Your task to perform on an android device: Open the phone app and click the voicemail tab. Image 0: 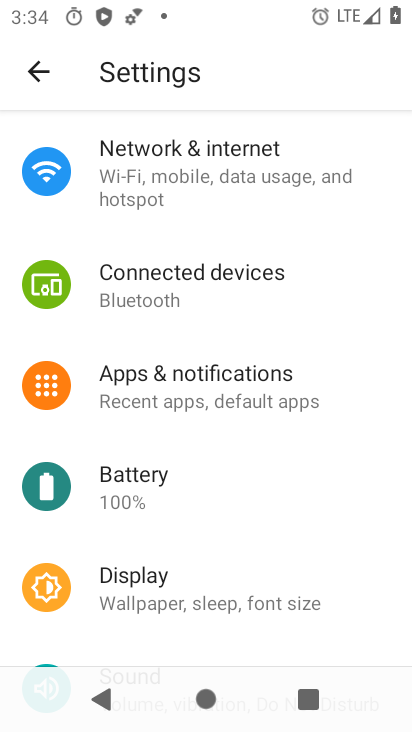
Step 0: drag from (319, 554) to (329, 334)
Your task to perform on an android device: Open the phone app and click the voicemail tab. Image 1: 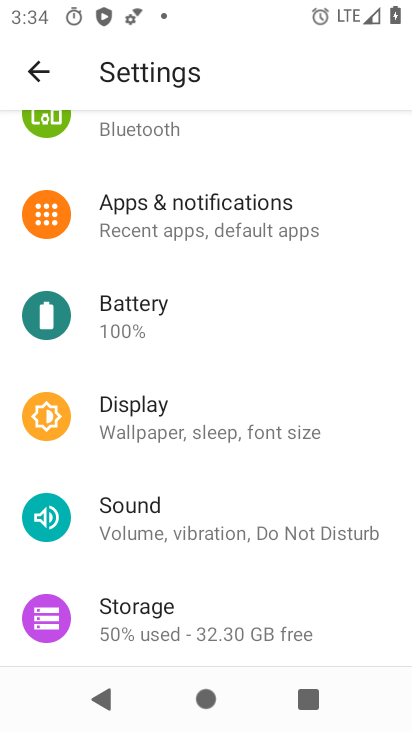
Step 1: press home button
Your task to perform on an android device: Open the phone app and click the voicemail tab. Image 2: 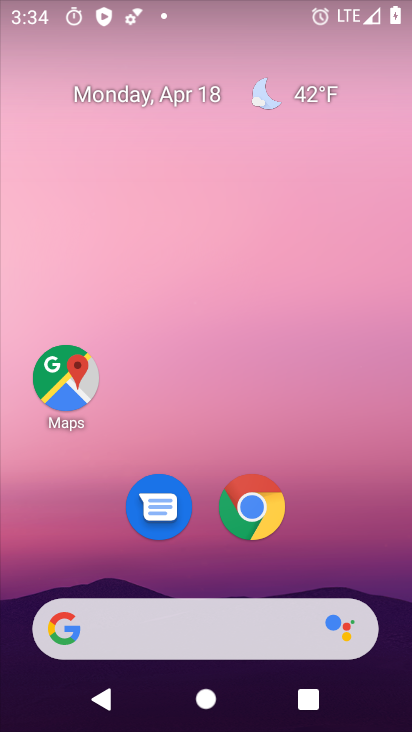
Step 2: drag from (379, 538) to (331, 206)
Your task to perform on an android device: Open the phone app and click the voicemail tab. Image 3: 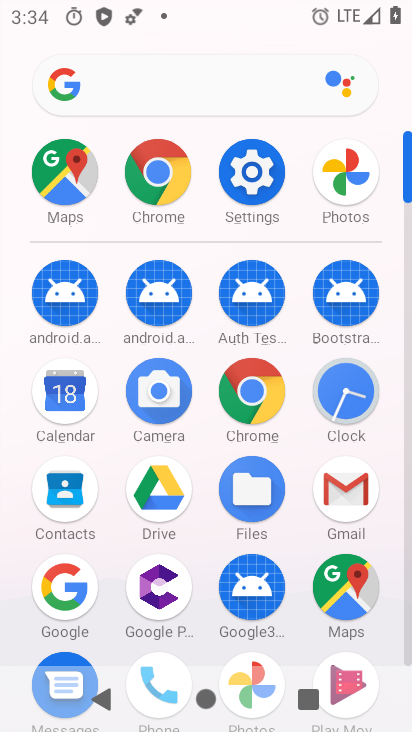
Step 3: click (165, 657)
Your task to perform on an android device: Open the phone app and click the voicemail tab. Image 4: 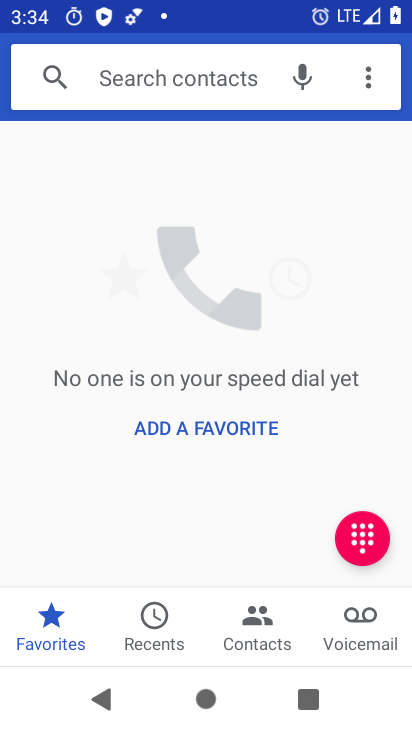
Step 4: task complete